Your task to perform on an android device: toggle pop-ups in chrome Image 0: 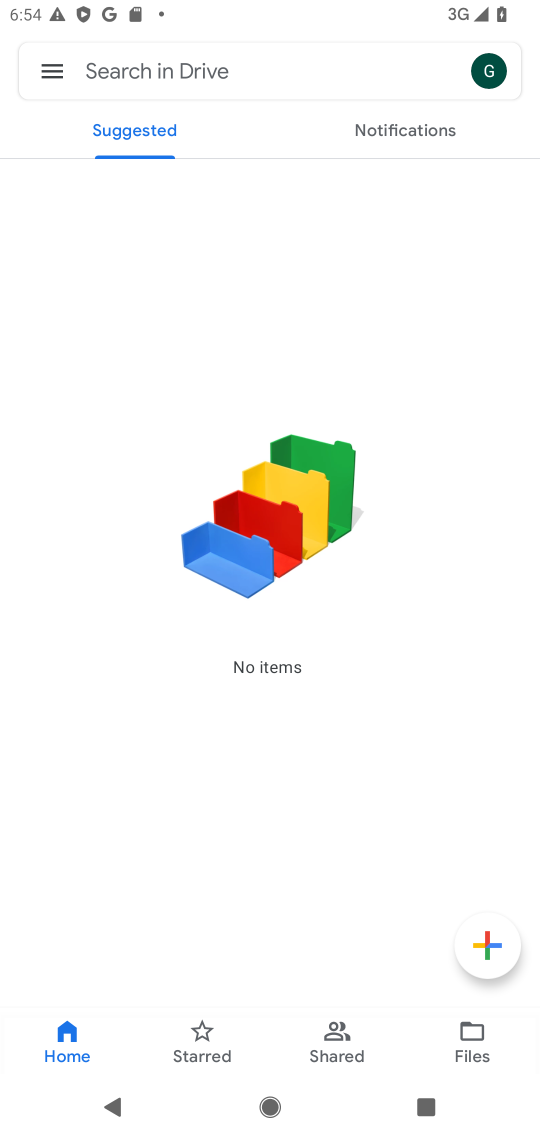
Step 0: press home button
Your task to perform on an android device: toggle pop-ups in chrome Image 1: 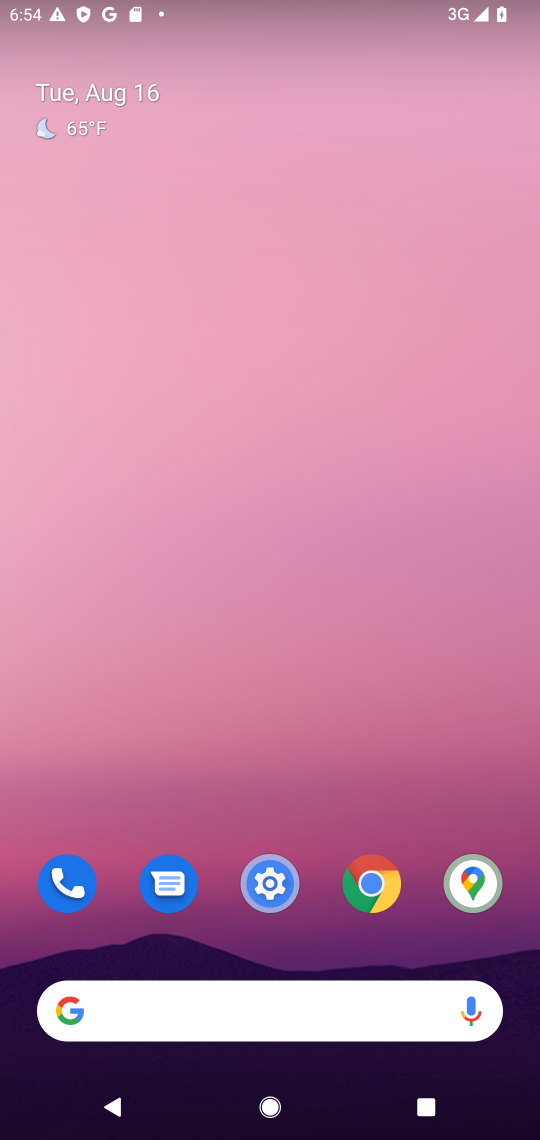
Step 1: click (372, 888)
Your task to perform on an android device: toggle pop-ups in chrome Image 2: 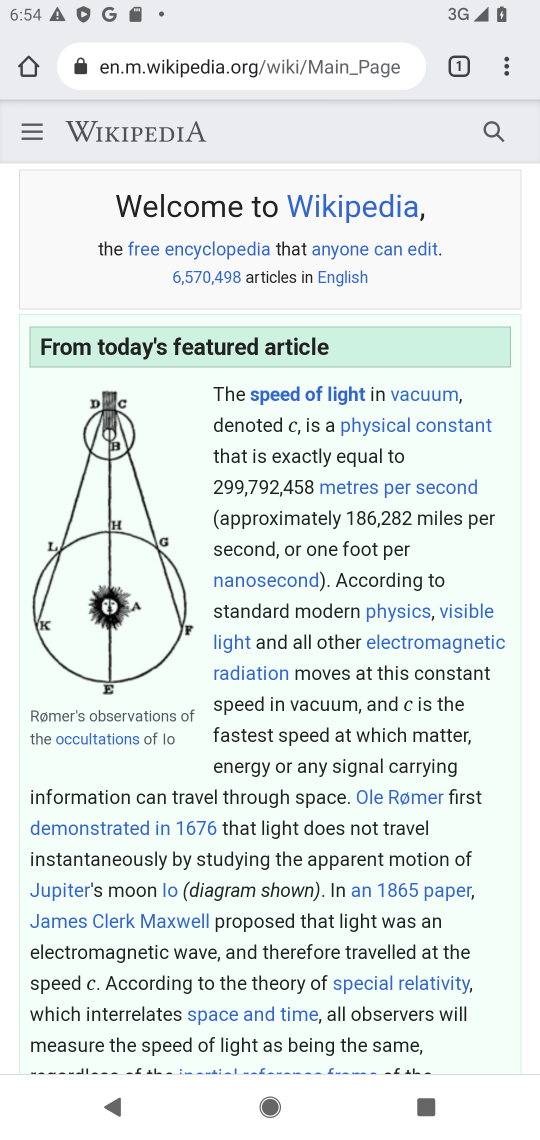
Step 2: click (513, 68)
Your task to perform on an android device: toggle pop-ups in chrome Image 3: 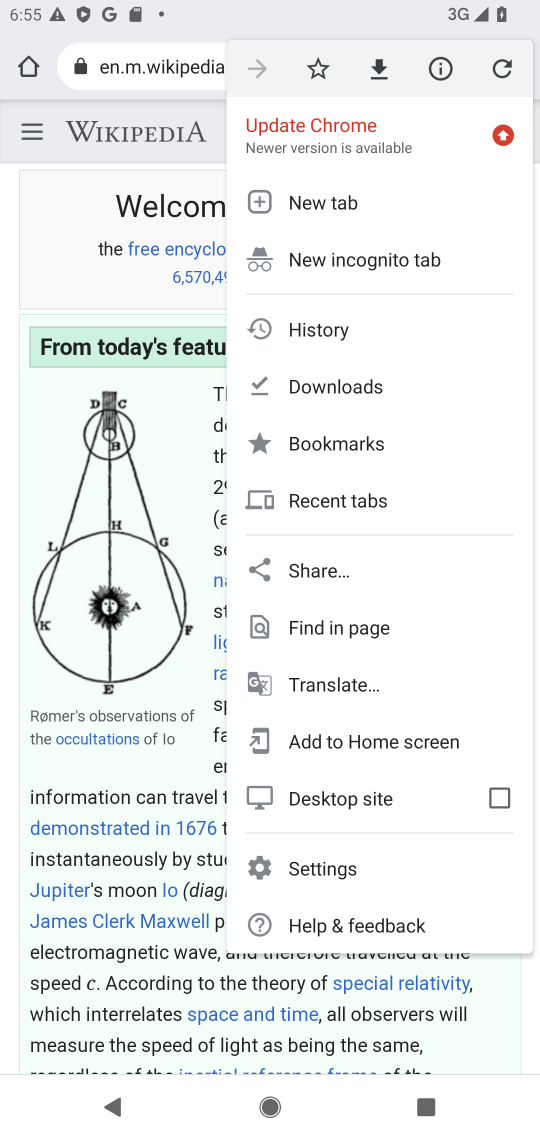
Step 3: click (334, 868)
Your task to perform on an android device: toggle pop-ups in chrome Image 4: 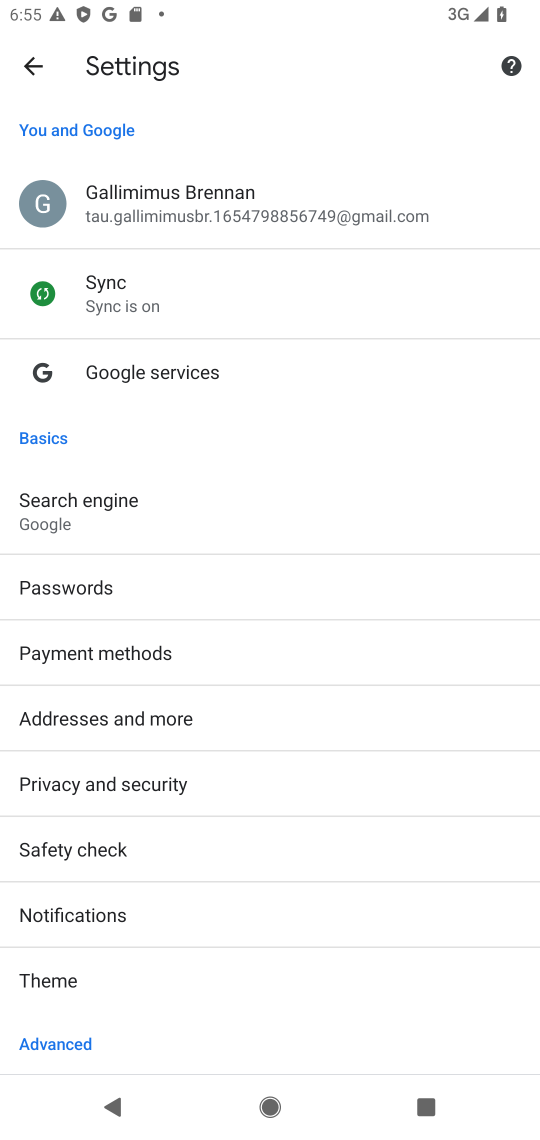
Step 4: drag from (204, 888) to (281, 748)
Your task to perform on an android device: toggle pop-ups in chrome Image 5: 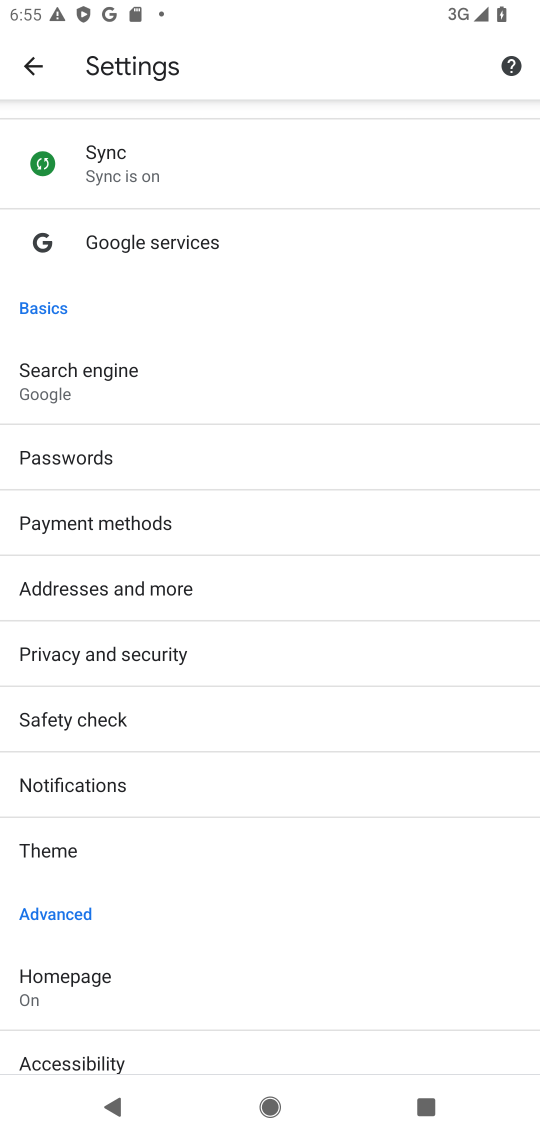
Step 5: drag from (153, 923) to (258, 745)
Your task to perform on an android device: toggle pop-ups in chrome Image 6: 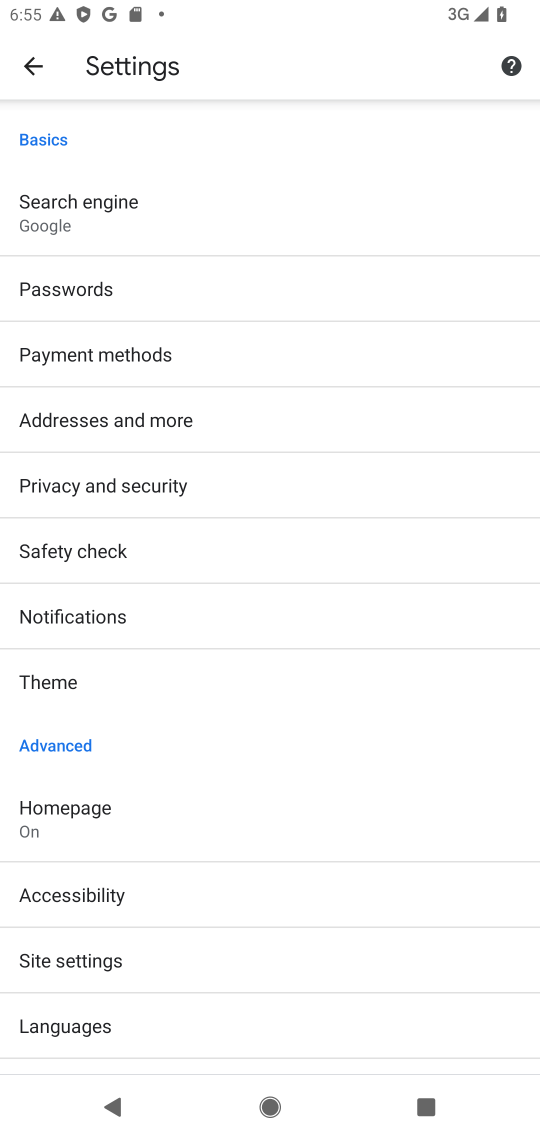
Step 6: click (89, 967)
Your task to perform on an android device: toggle pop-ups in chrome Image 7: 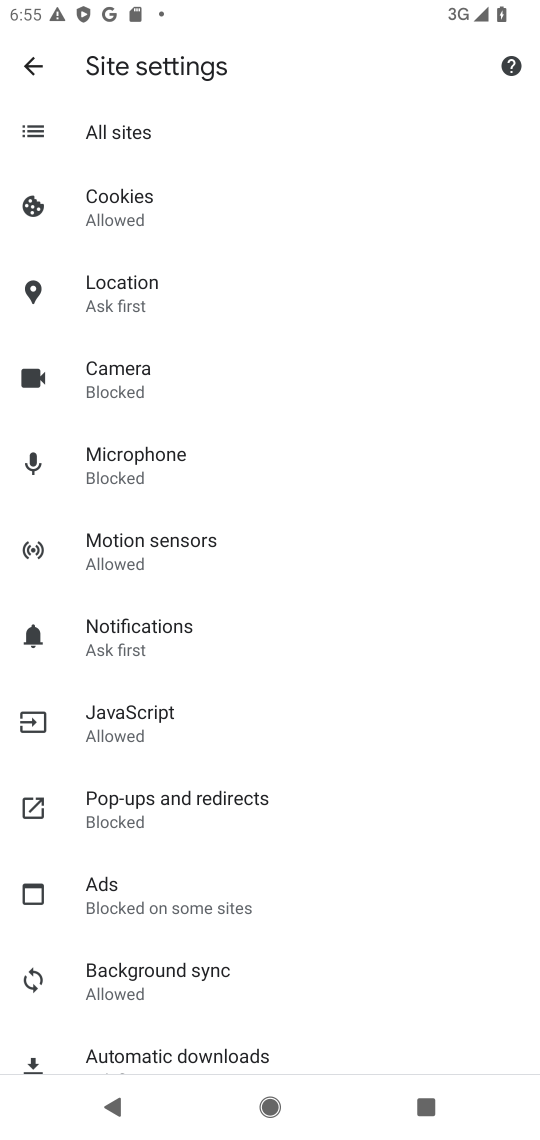
Step 7: click (165, 820)
Your task to perform on an android device: toggle pop-ups in chrome Image 8: 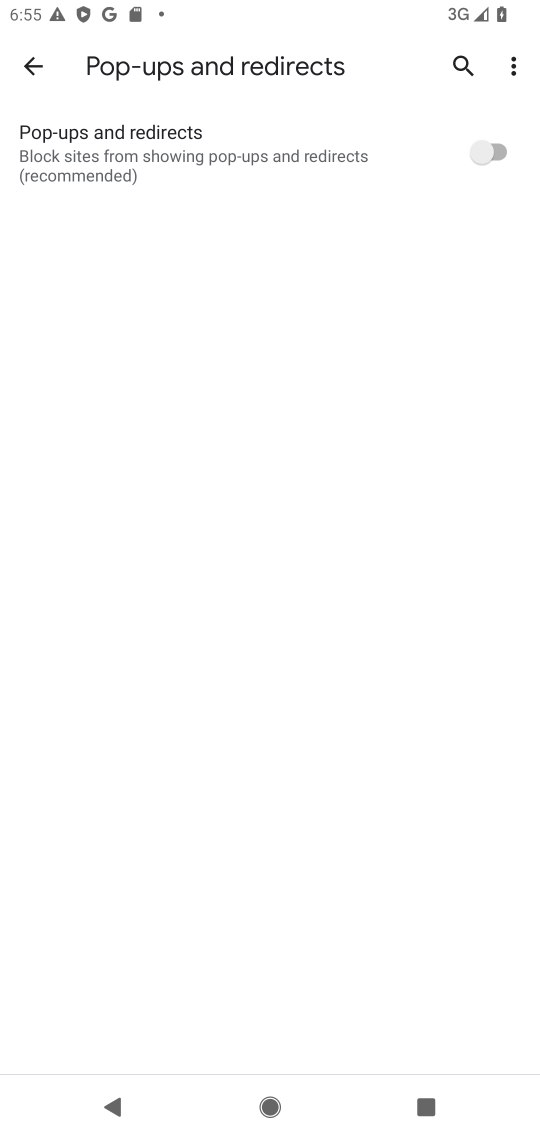
Step 8: click (486, 151)
Your task to perform on an android device: toggle pop-ups in chrome Image 9: 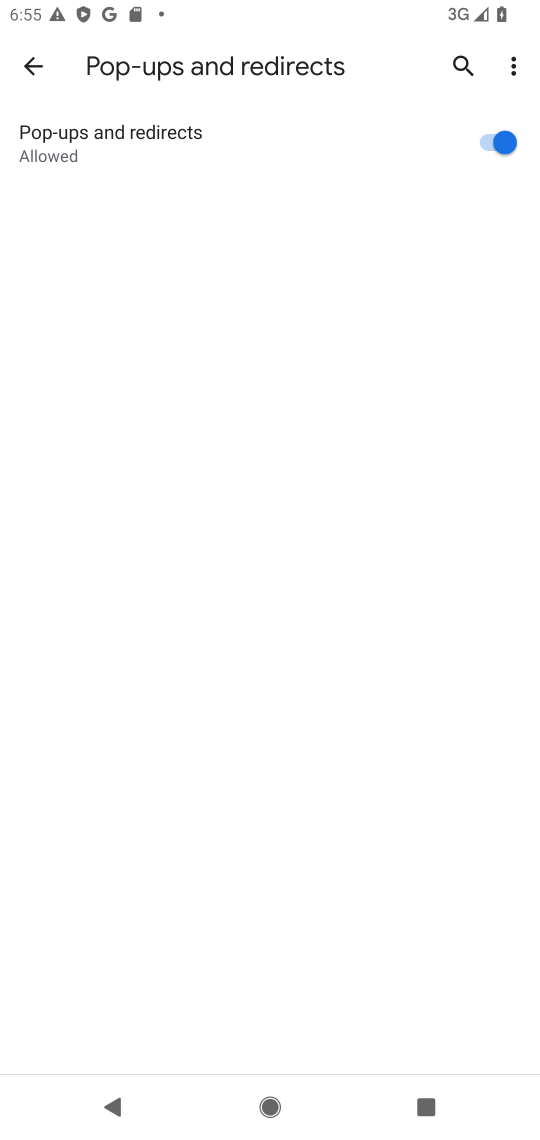
Step 9: task complete